Your task to perform on an android device: check out phone information Image 0: 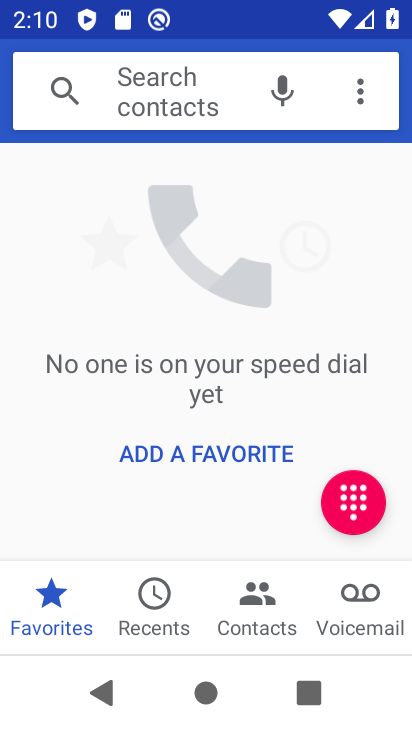
Step 0: press home button
Your task to perform on an android device: check out phone information Image 1: 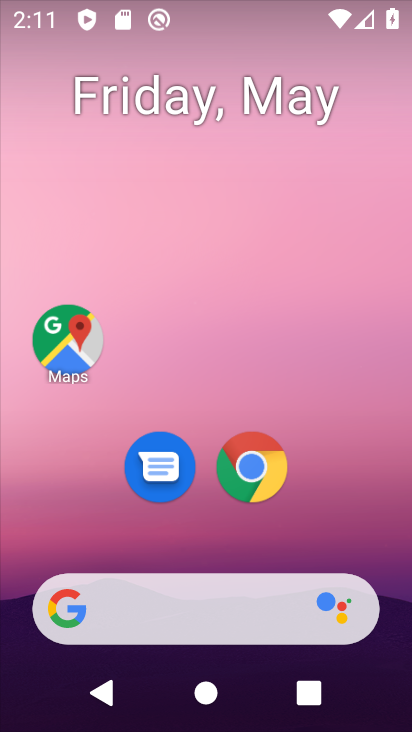
Step 1: drag from (307, 537) to (255, 54)
Your task to perform on an android device: check out phone information Image 2: 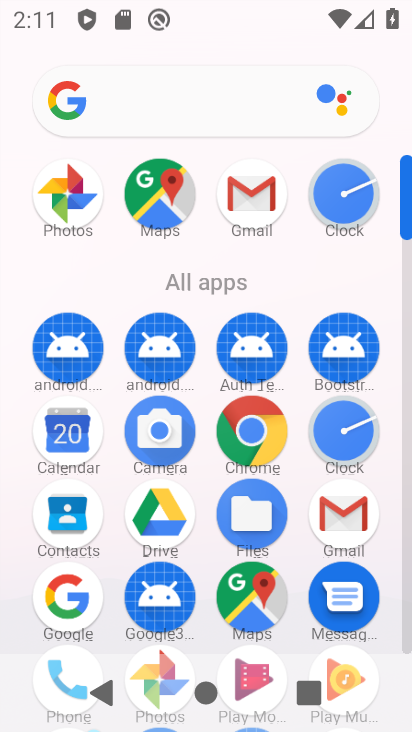
Step 2: drag from (107, 607) to (131, 356)
Your task to perform on an android device: check out phone information Image 3: 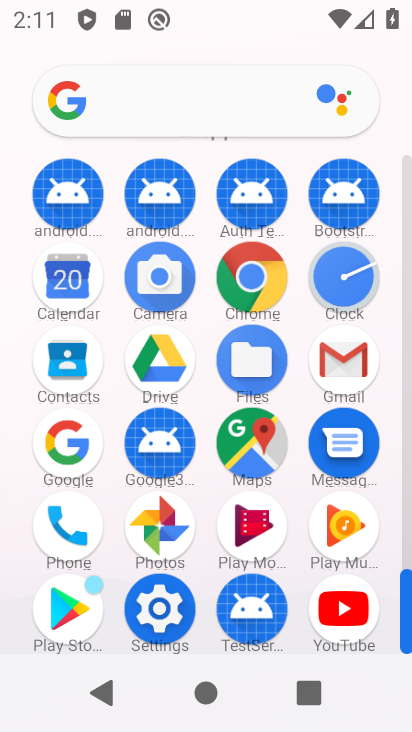
Step 3: click (155, 607)
Your task to perform on an android device: check out phone information Image 4: 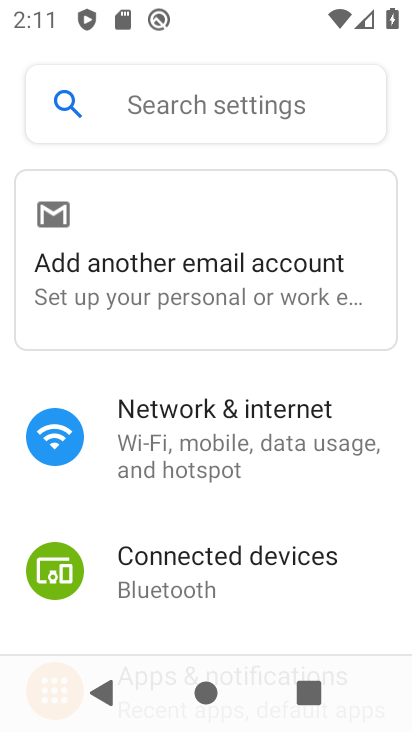
Step 4: drag from (159, 589) to (186, 151)
Your task to perform on an android device: check out phone information Image 5: 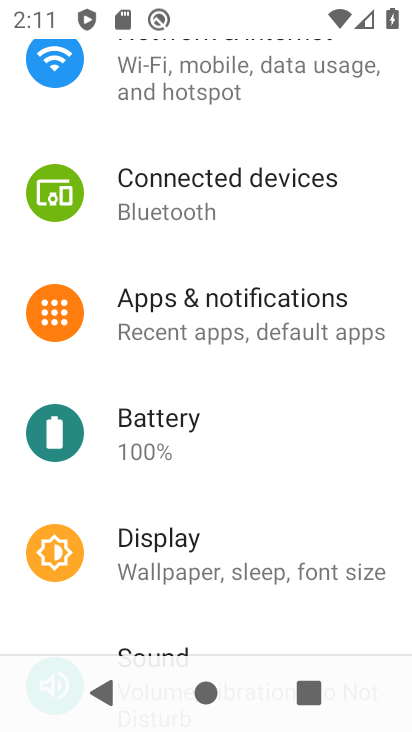
Step 5: drag from (234, 317) to (247, 92)
Your task to perform on an android device: check out phone information Image 6: 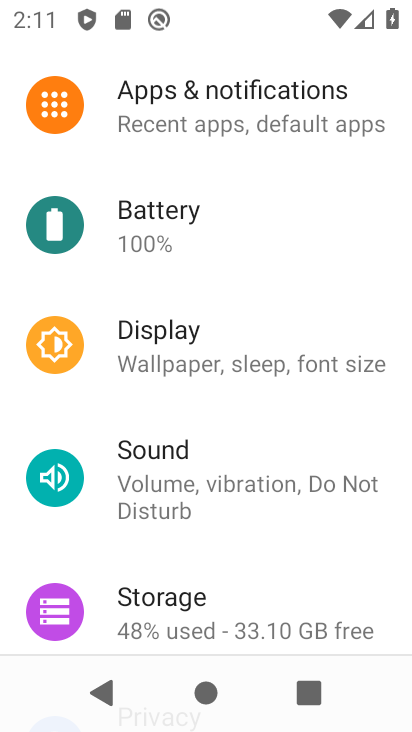
Step 6: drag from (242, 584) to (173, 10)
Your task to perform on an android device: check out phone information Image 7: 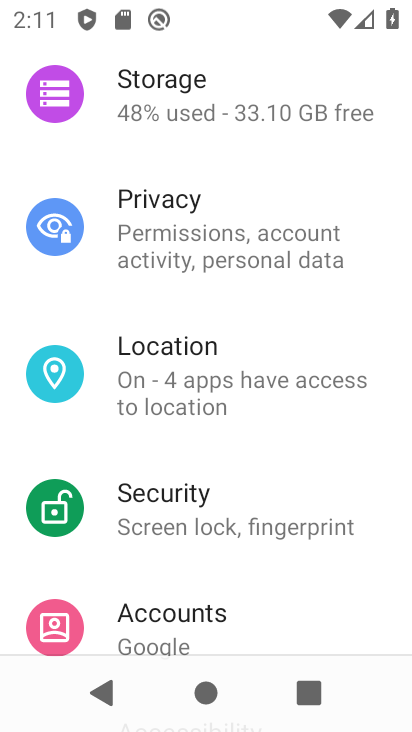
Step 7: drag from (207, 325) to (138, 9)
Your task to perform on an android device: check out phone information Image 8: 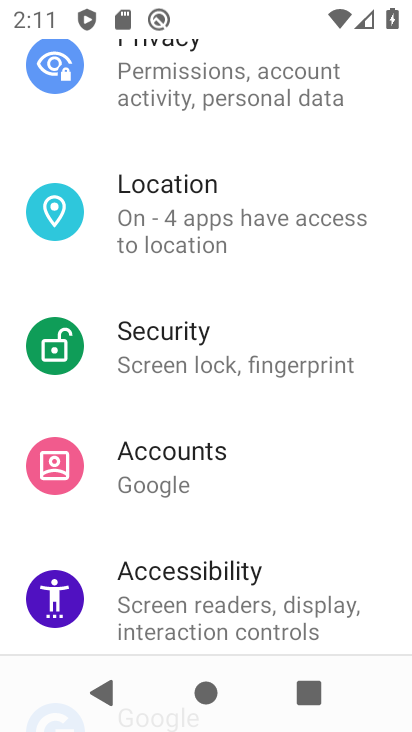
Step 8: drag from (139, 207) to (188, 18)
Your task to perform on an android device: check out phone information Image 9: 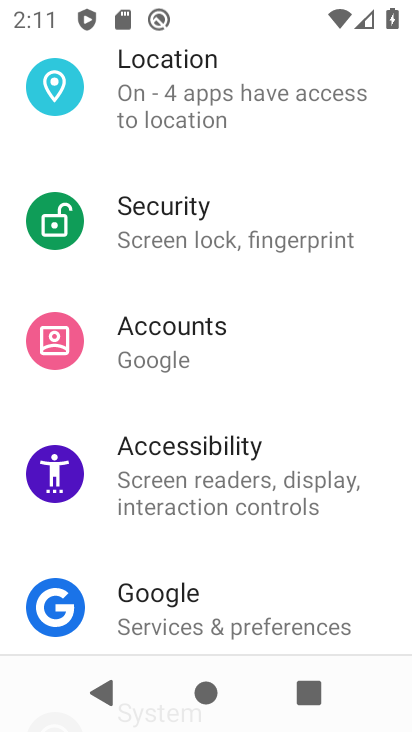
Step 9: drag from (168, 581) to (166, 109)
Your task to perform on an android device: check out phone information Image 10: 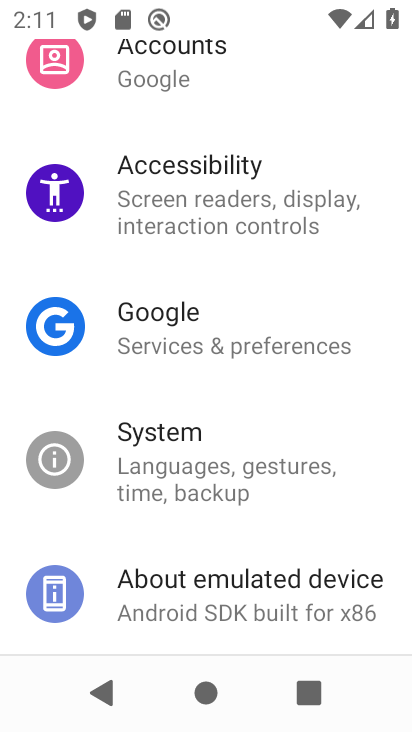
Step 10: click (208, 617)
Your task to perform on an android device: check out phone information Image 11: 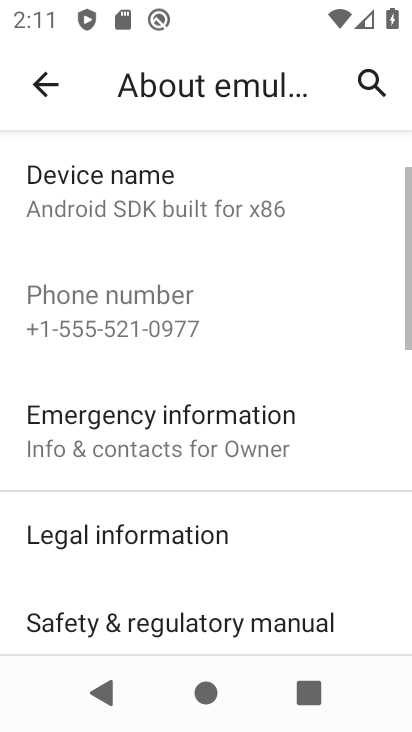
Step 11: task complete